Your task to perform on an android device: Open accessibility settings Image 0: 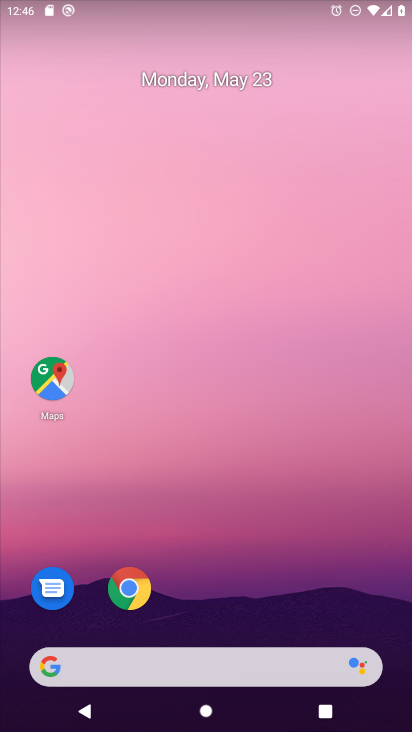
Step 0: drag from (258, 660) to (180, 148)
Your task to perform on an android device: Open accessibility settings Image 1: 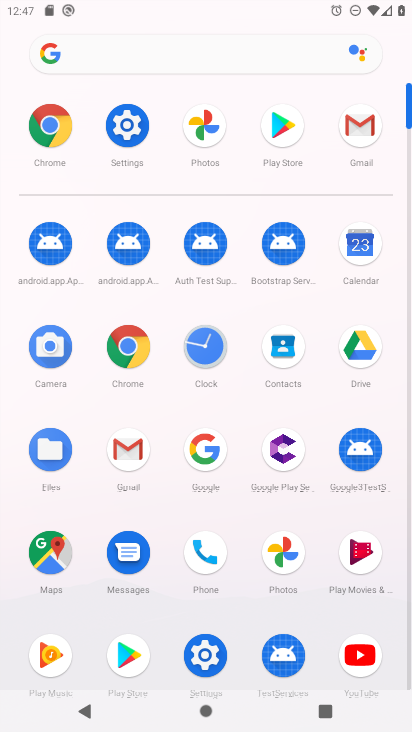
Step 1: click (119, 137)
Your task to perform on an android device: Open accessibility settings Image 2: 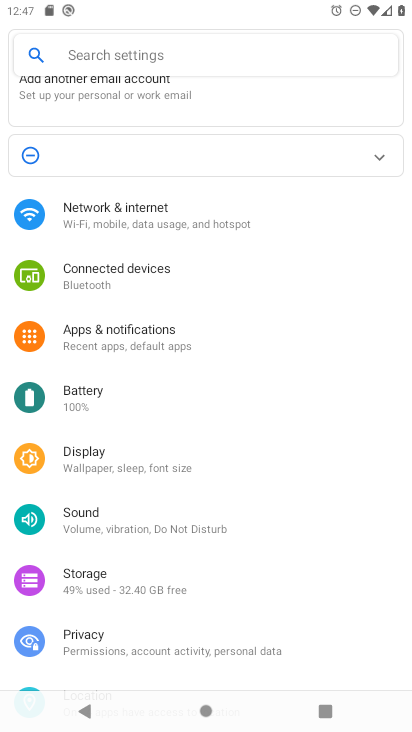
Step 2: click (129, 57)
Your task to perform on an android device: Open accessibility settings Image 3: 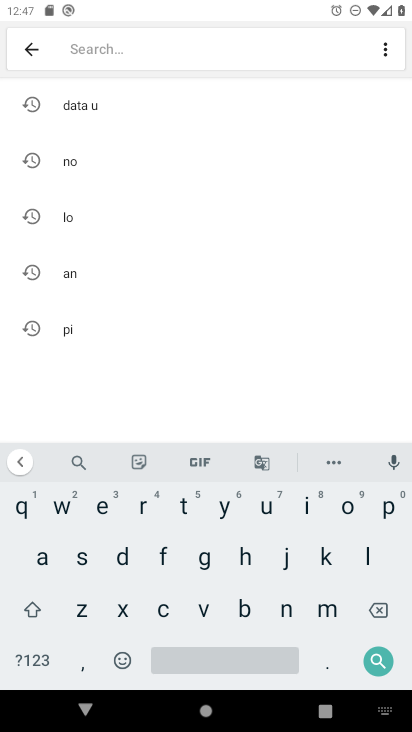
Step 3: click (42, 552)
Your task to perform on an android device: Open accessibility settings Image 4: 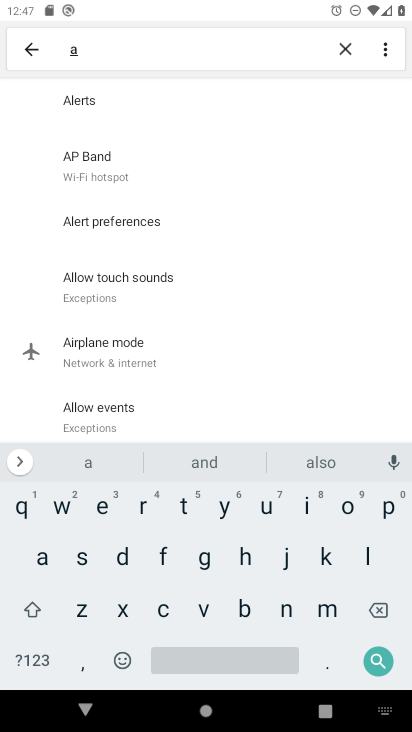
Step 4: click (156, 608)
Your task to perform on an android device: Open accessibility settings Image 5: 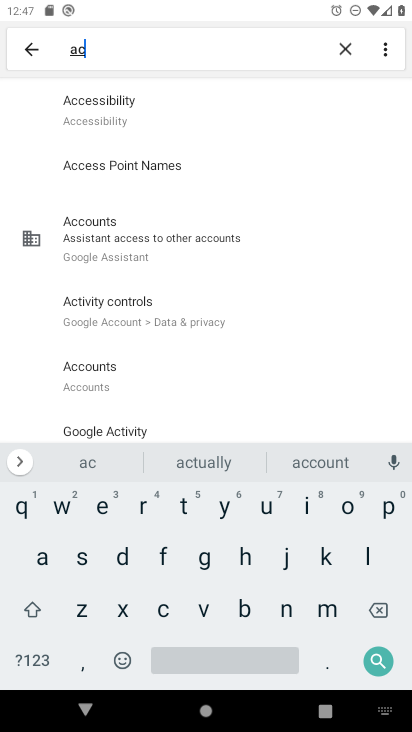
Step 5: click (131, 98)
Your task to perform on an android device: Open accessibility settings Image 6: 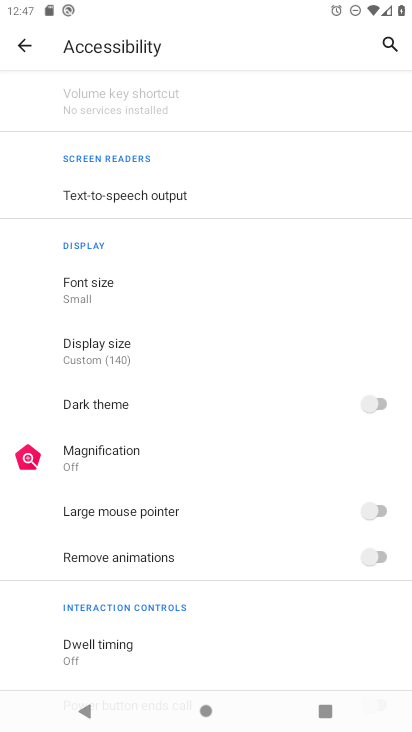
Step 6: task complete